Your task to perform on an android device: Open calendar and show me the first week of next month Image 0: 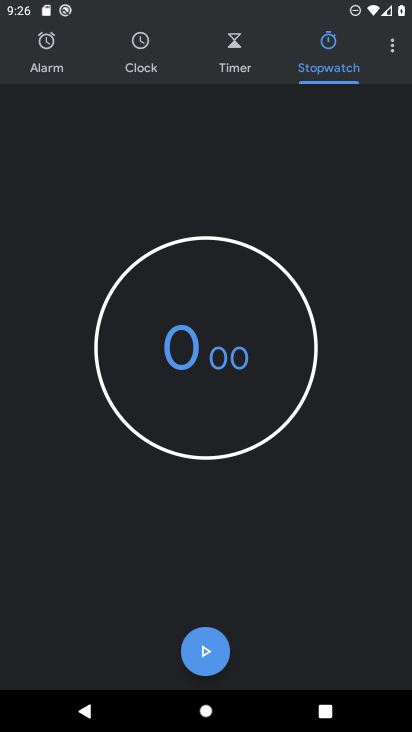
Step 0: press home button
Your task to perform on an android device: Open calendar and show me the first week of next month Image 1: 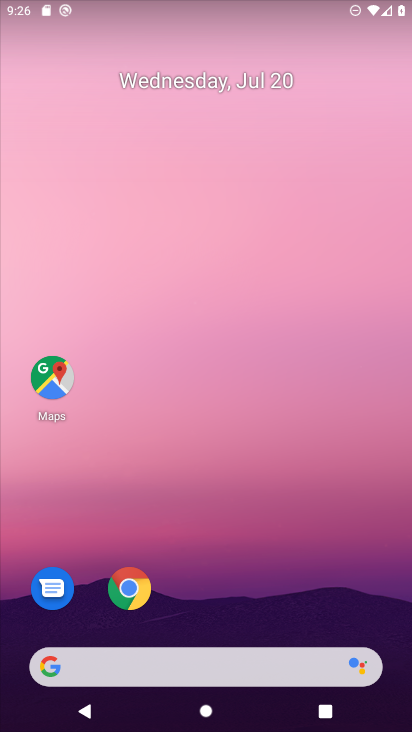
Step 1: click (260, 96)
Your task to perform on an android device: Open calendar and show me the first week of next month Image 2: 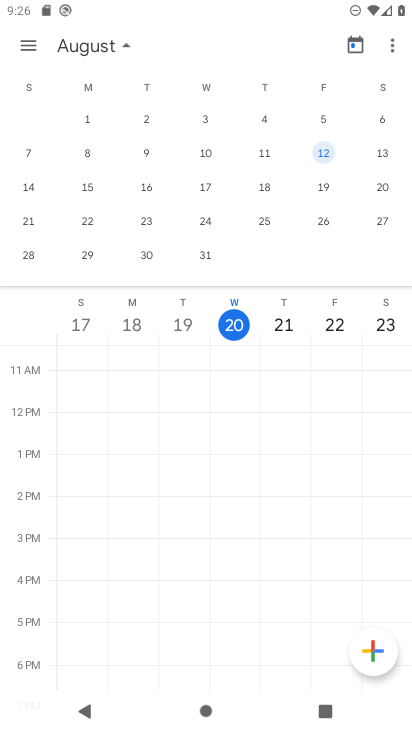
Step 2: click (198, 119)
Your task to perform on an android device: Open calendar and show me the first week of next month Image 3: 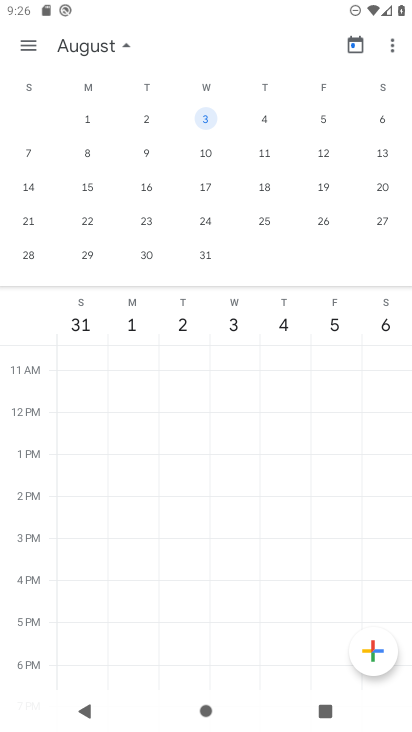
Step 3: task complete